Your task to perform on an android device: Open Google Chrome Image 0: 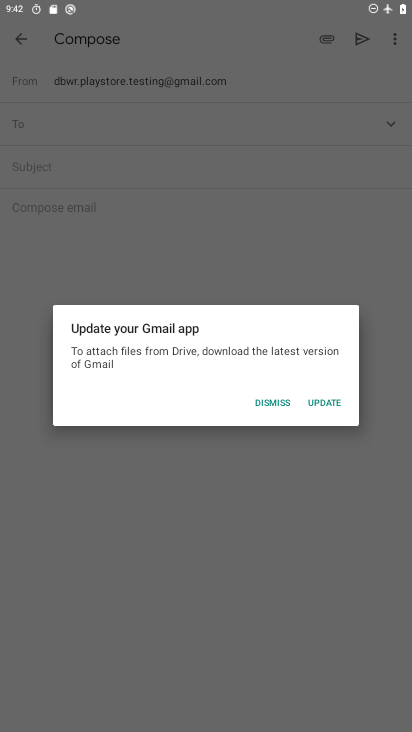
Step 0: press home button
Your task to perform on an android device: Open Google Chrome Image 1: 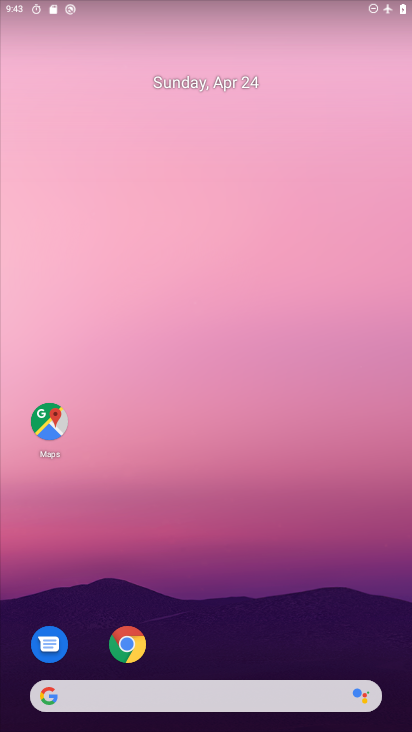
Step 1: drag from (215, 670) to (142, 75)
Your task to perform on an android device: Open Google Chrome Image 2: 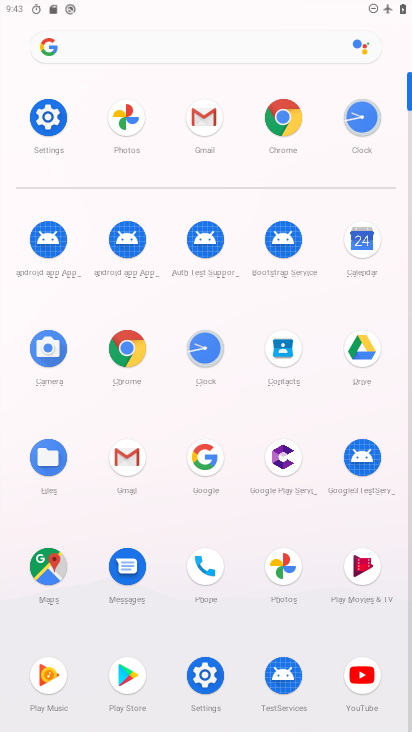
Step 2: click (126, 356)
Your task to perform on an android device: Open Google Chrome Image 3: 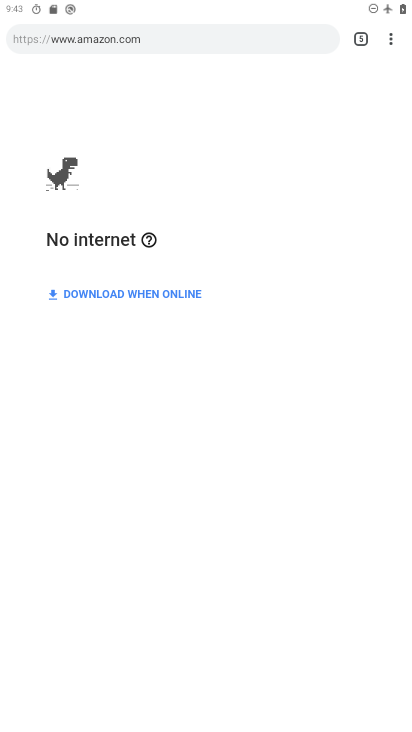
Step 3: task complete